Your task to perform on an android device: Go to Google maps Image 0: 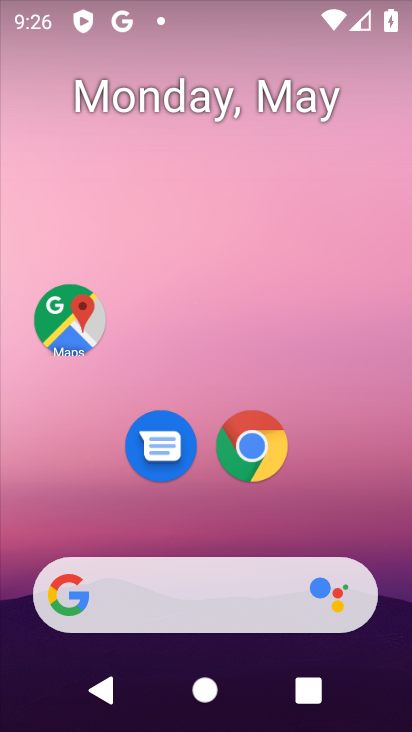
Step 0: click (74, 301)
Your task to perform on an android device: Go to Google maps Image 1: 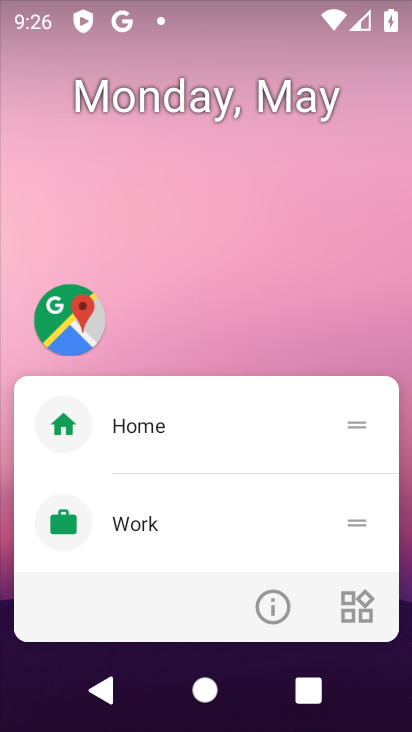
Step 1: click (91, 313)
Your task to perform on an android device: Go to Google maps Image 2: 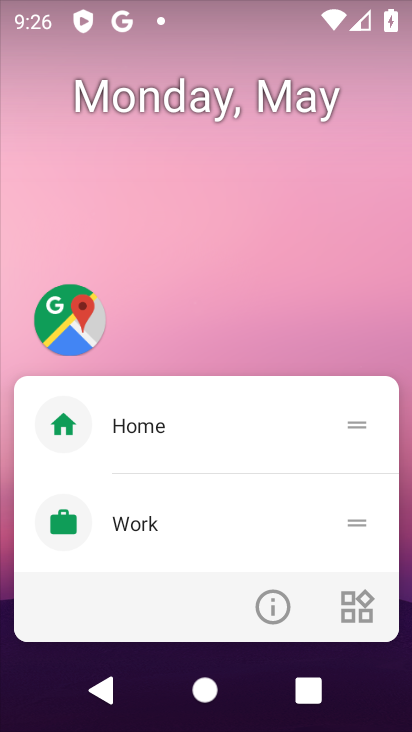
Step 2: click (73, 319)
Your task to perform on an android device: Go to Google maps Image 3: 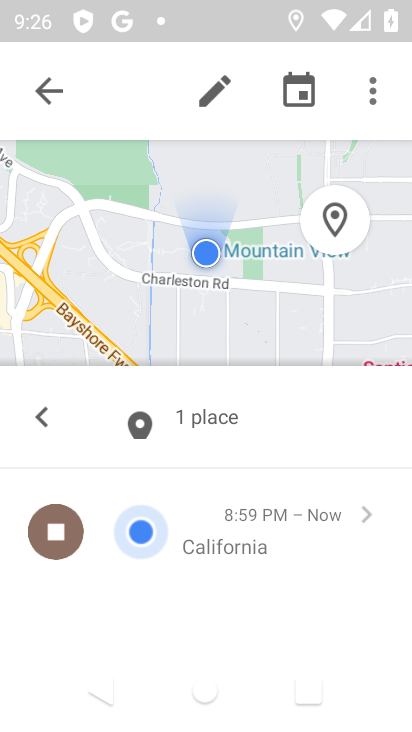
Step 3: click (54, 76)
Your task to perform on an android device: Go to Google maps Image 4: 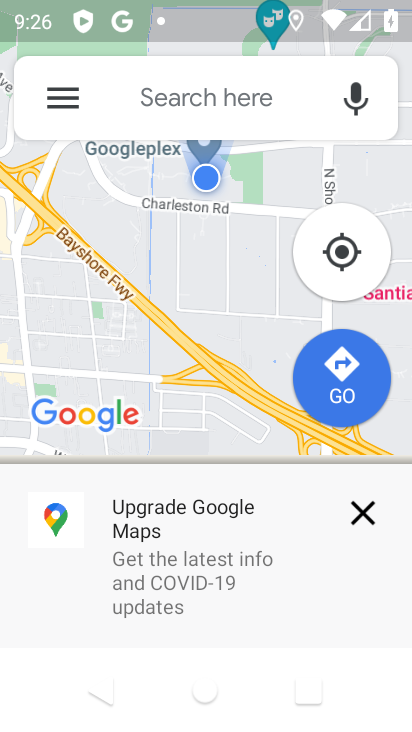
Step 4: click (367, 519)
Your task to perform on an android device: Go to Google maps Image 5: 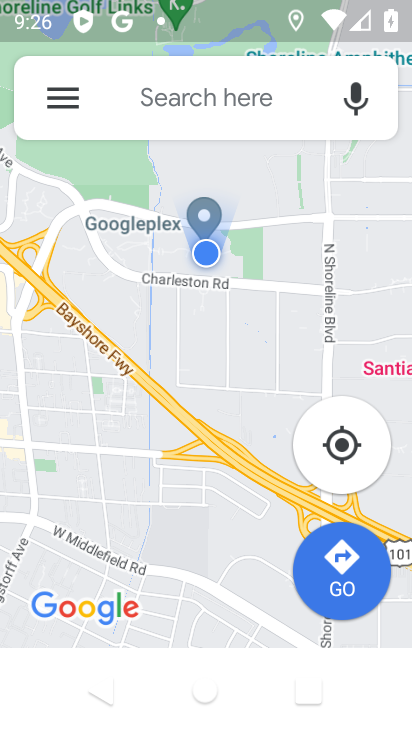
Step 5: task complete